Your task to perform on an android device: Search for Mexican restaurants on Maps Image 0: 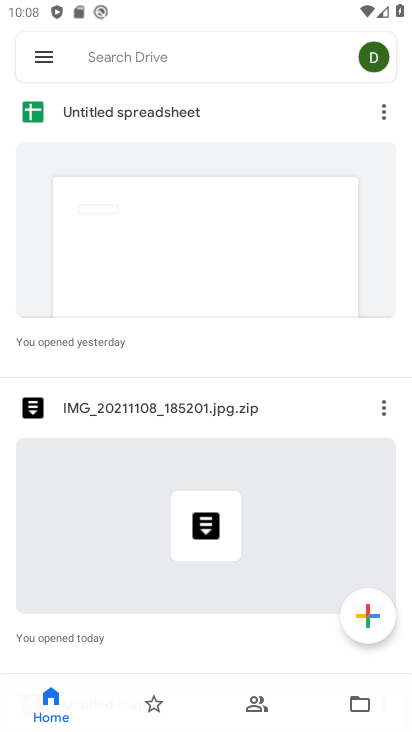
Step 0: press home button
Your task to perform on an android device: Search for Mexican restaurants on Maps Image 1: 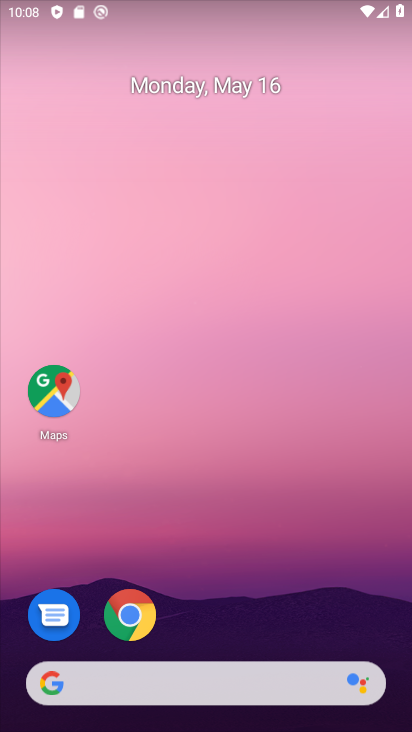
Step 1: drag from (279, 688) to (241, 187)
Your task to perform on an android device: Search for Mexican restaurants on Maps Image 2: 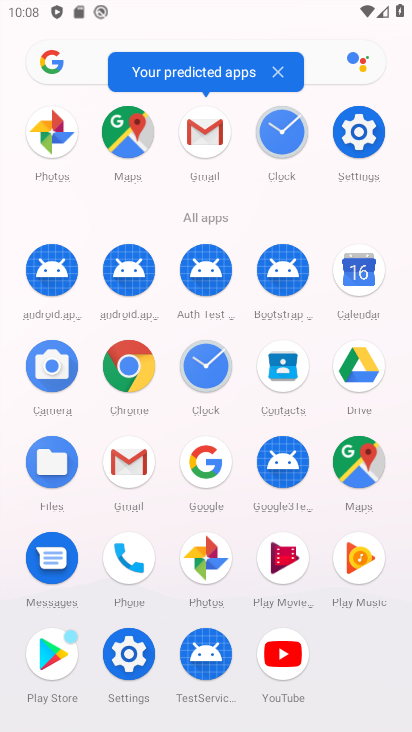
Step 2: click (354, 441)
Your task to perform on an android device: Search for Mexican restaurants on Maps Image 3: 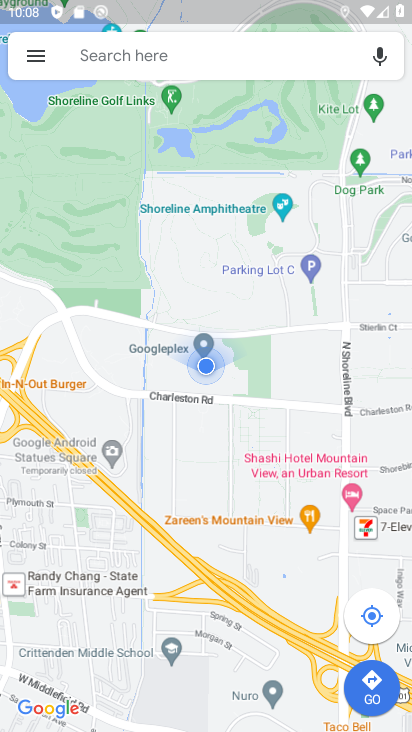
Step 3: click (124, 48)
Your task to perform on an android device: Search for Mexican restaurants on Maps Image 4: 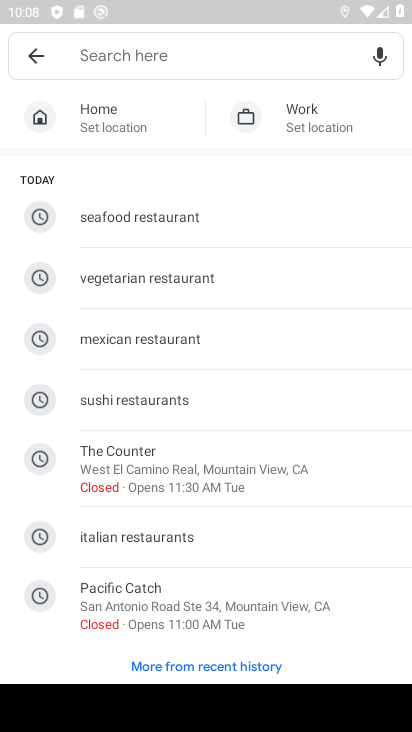
Step 4: drag from (378, 692) to (390, 628)
Your task to perform on an android device: Search for Mexican restaurants on Maps Image 5: 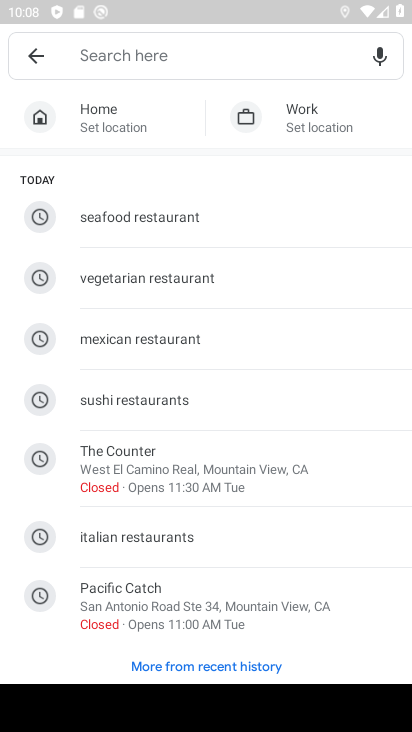
Step 5: drag from (372, 707) to (370, 665)
Your task to perform on an android device: Search for Mexican restaurants on Maps Image 6: 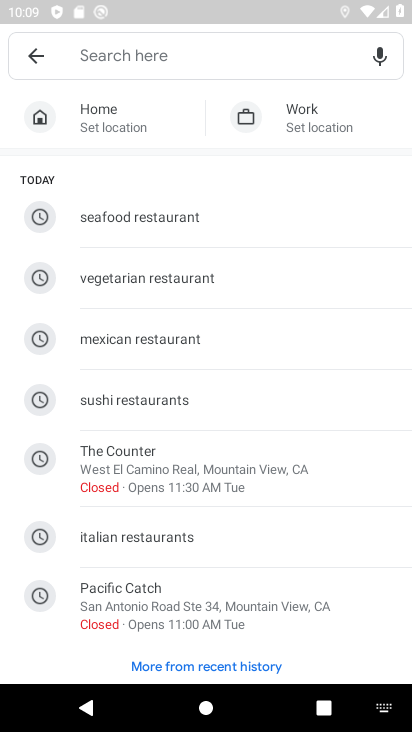
Step 6: click (394, 712)
Your task to perform on an android device: Search for Mexican restaurants on Maps Image 7: 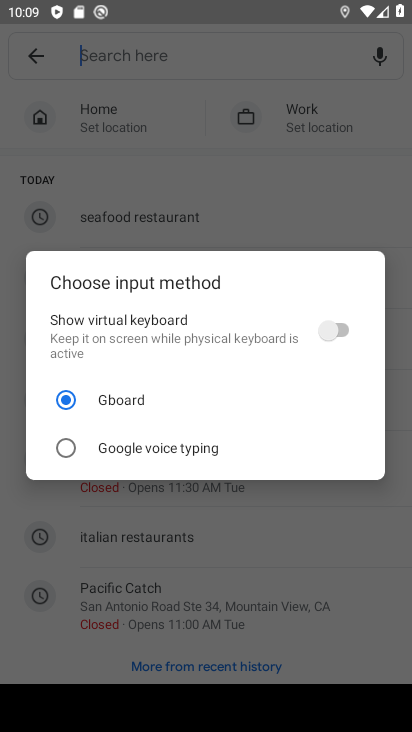
Step 7: click (342, 328)
Your task to perform on an android device: Search for Mexican restaurants on Maps Image 8: 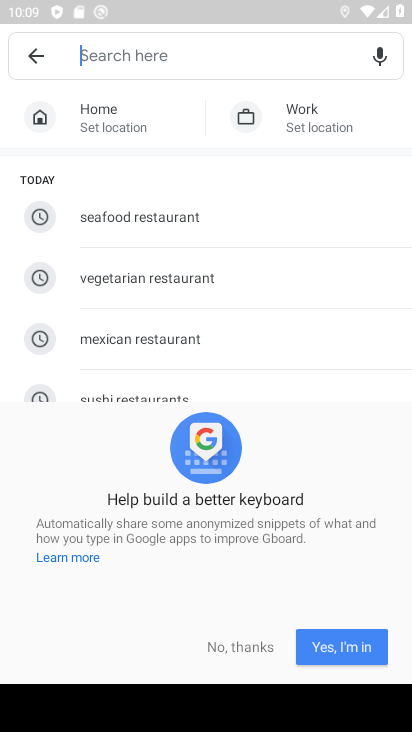
Step 8: click (165, 335)
Your task to perform on an android device: Search for Mexican restaurants on Maps Image 9: 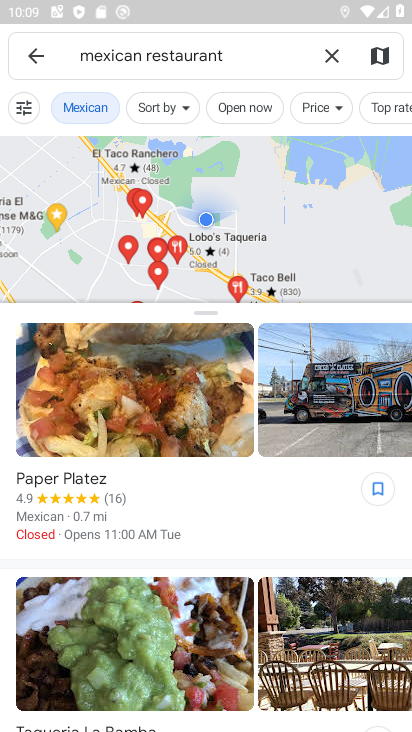
Step 9: click (109, 254)
Your task to perform on an android device: Search for Mexican restaurants on Maps Image 10: 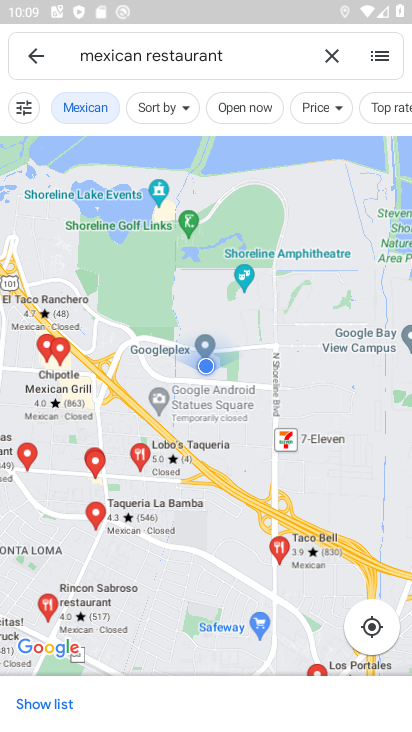
Step 10: task complete